Your task to perform on an android device: Show me recent news Image 0: 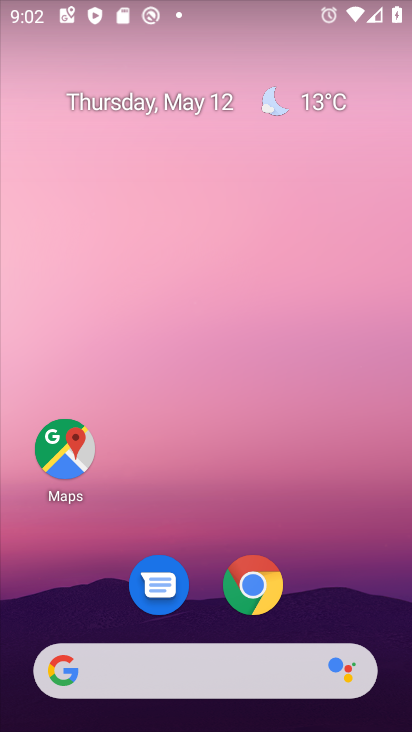
Step 0: click (267, 663)
Your task to perform on an android device: Show me recent news Image 1: 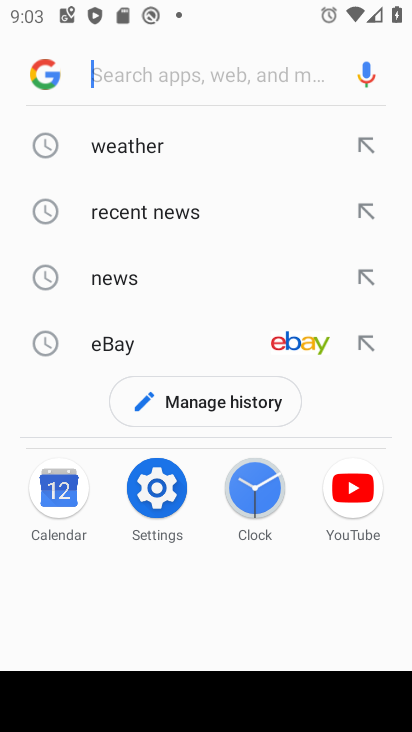
Step 1: click (83, 205)
Your task to perform on an android device: Show me recent news Image 2: 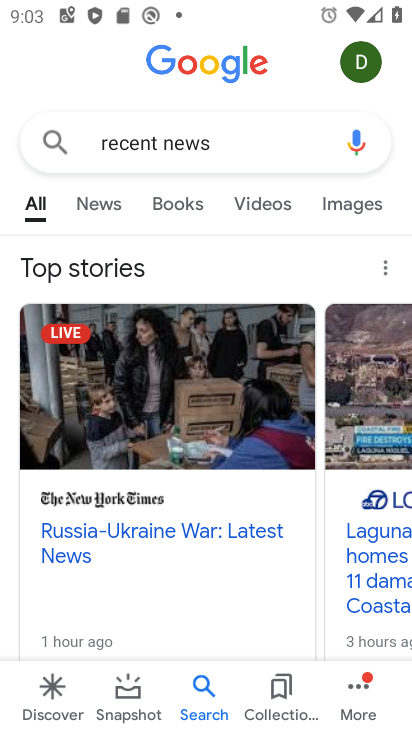
Step 2: task complete